Your task to perform on an android device: turn off notifications in google photos Image 0: 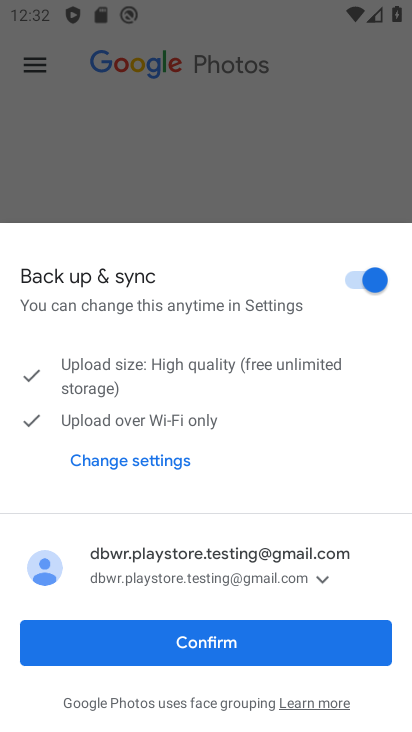
Step 0: click (86, 642)
Your task to perform on an android device: turn off notifications in google photos Image 1: 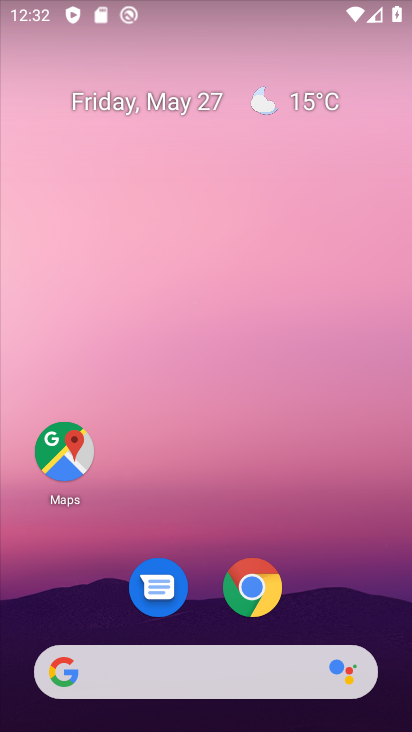
Step 1: drag from (364, 348) to (360, 1)
Your task to perform on an android device: turn off notifications in google photos Image 2: 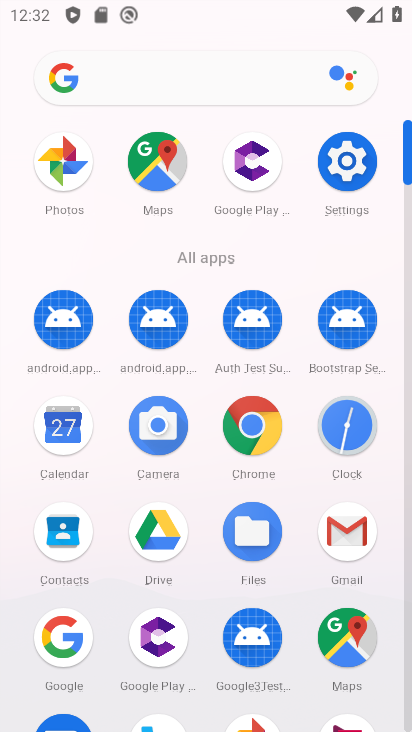
Step 2: click (50, 159)
Your task to perform on an android device: turn off notifications in google photos Image 3: 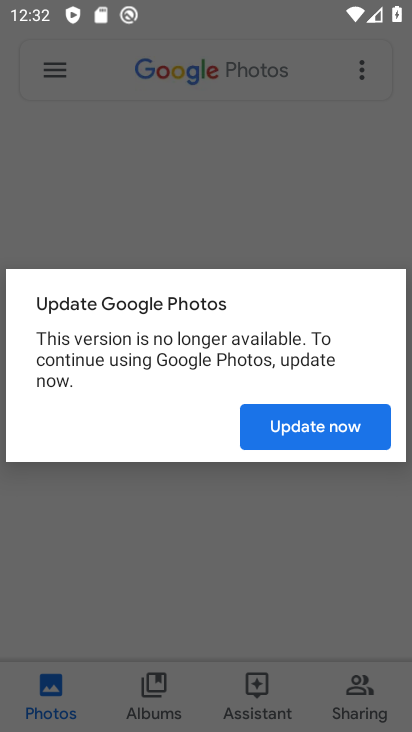
Step 3: click (294, 426)
Your task to perform on an android device: turn off notifications in google photos Image 4: 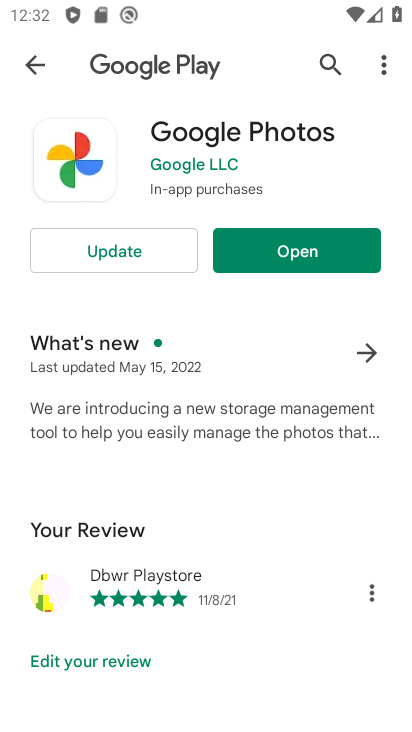
Step 4: click (152, 253)
Your task to perform on an android device: turn off notifications in google photos Image 5: 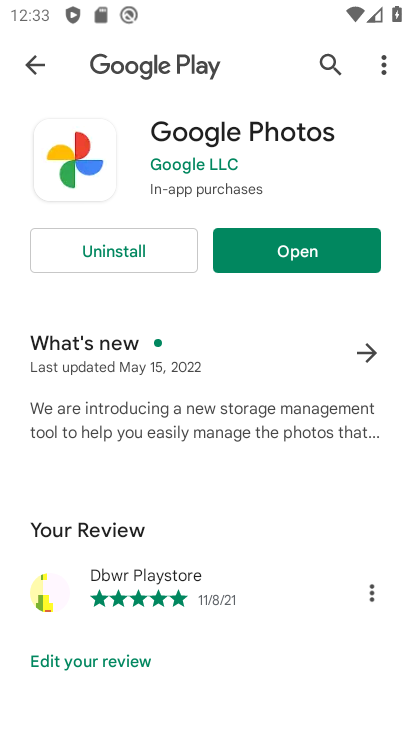
Step 5: click (273, 256)
Your task to perform on an android device: turn off notifications in google photos Image 6: 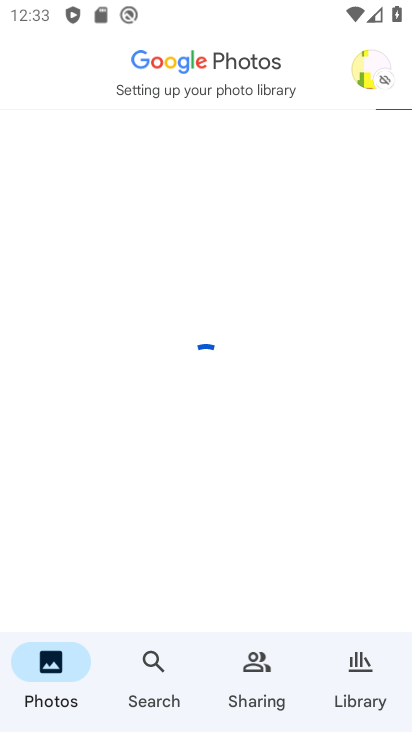
Step 6: click (375, 74)
Your task to perform on an android device: turn off notifications in google photos Image 7: 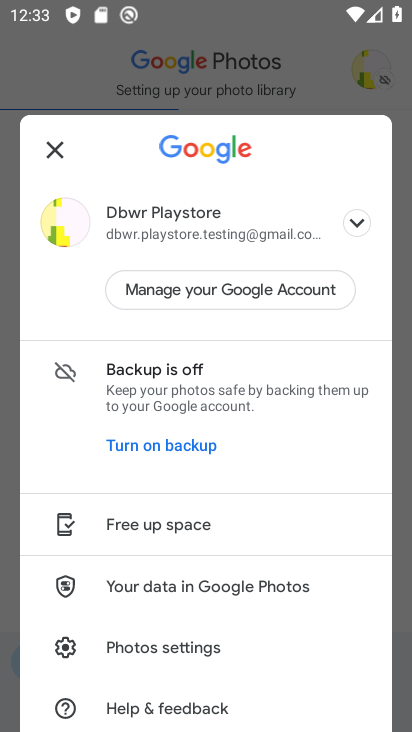
Step 7: drag from (173, 590) to (172, 253)
Your task to perform on an android device: turn off notifications in google photos Image 8: 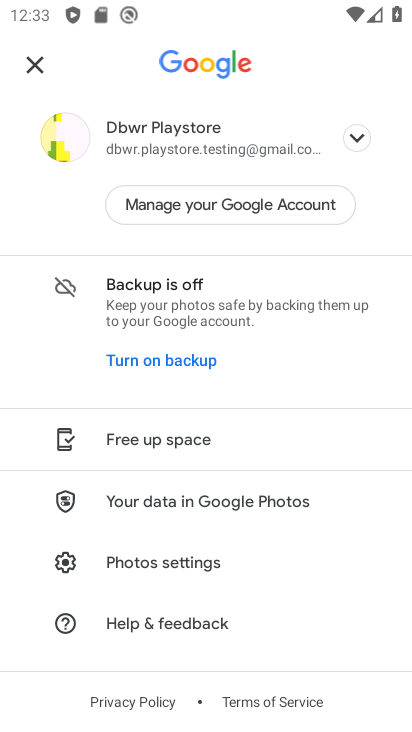
Step 8: click (151, 564)
Your task to perform on an android device: turn off notifications in google photos Image 9: 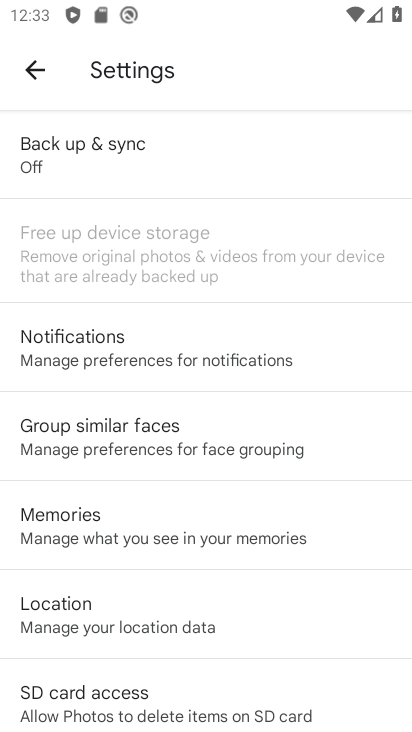
Step 9: click (148, 351)
Your task to perform on an android device: turn off notifications in google photos Image 10: 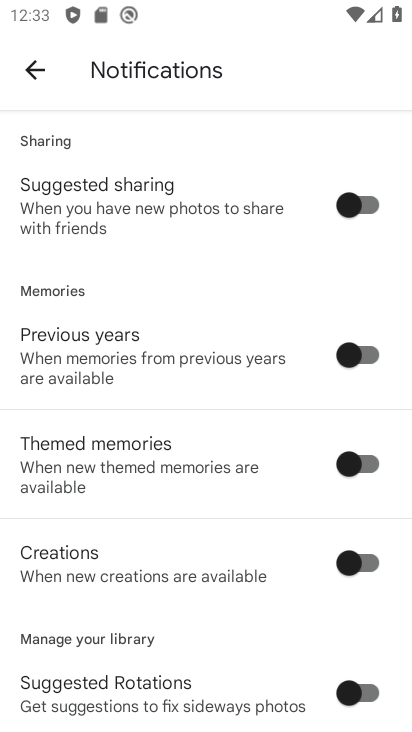
Step 10: drag from (181, 631) to (166, 168)
Your task to perform on an android device: turn off notifications in google photos Image 11: 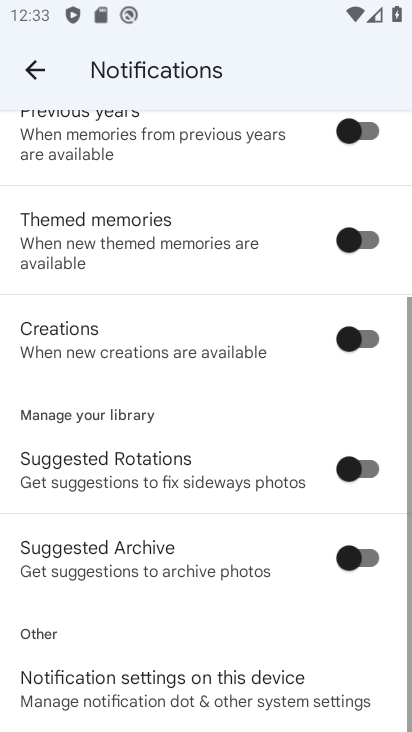
Step 11: click (234, 697)
Your task to perform on an android device: turn off notifications in google photos Image 12: 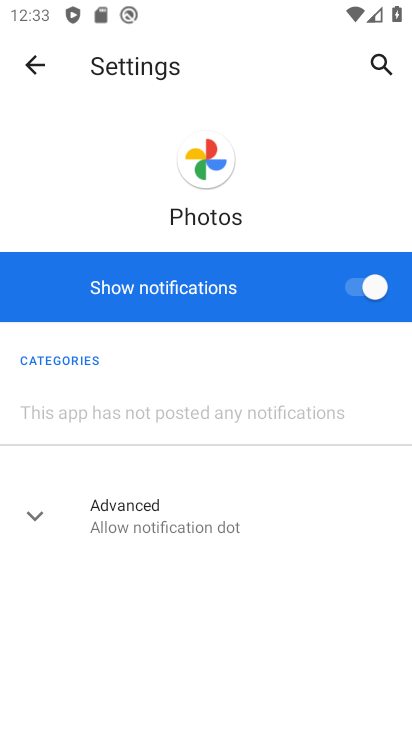
Step 12: click (343, 271)
Your task to perform on an android device: turn off notifications in google photos Image 13: 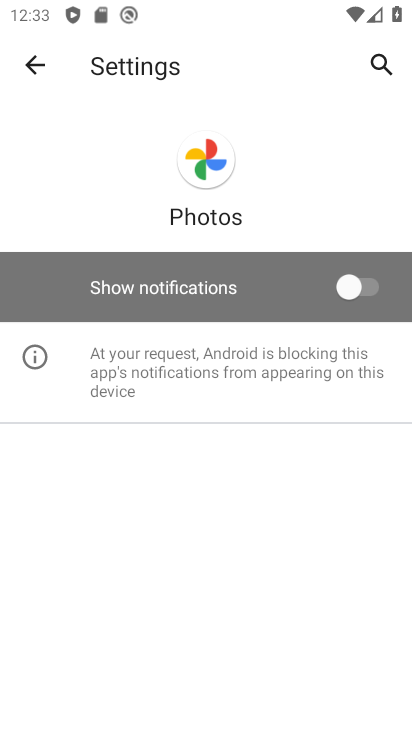
Step 13: task complete